Your task to perform on an android device: toggle translation in the chrome app Image 0: 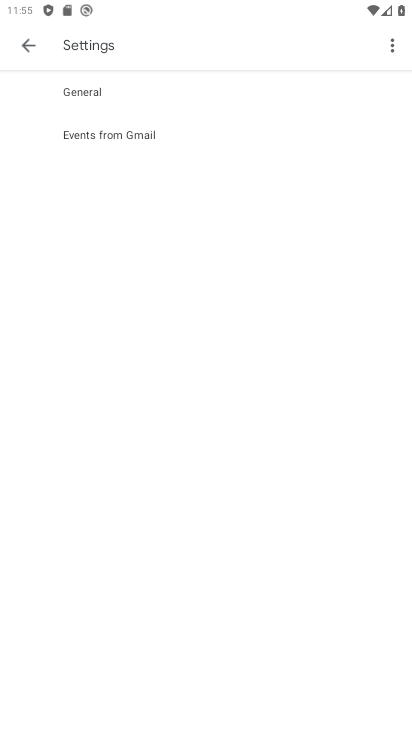
Step 0: press home button
Your task to perform on an android device: toggle translation in the chrome app Image 1: 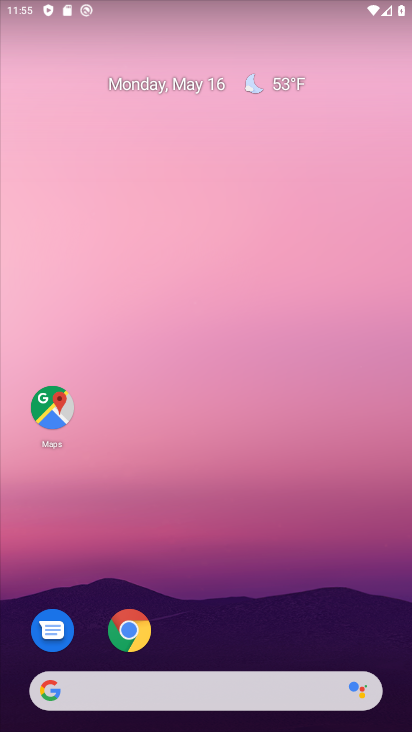
Step 1: drag from (163, 631) to (182, 179)
Your task to perform on an android device: toggle translation in the chrome app Image 2: 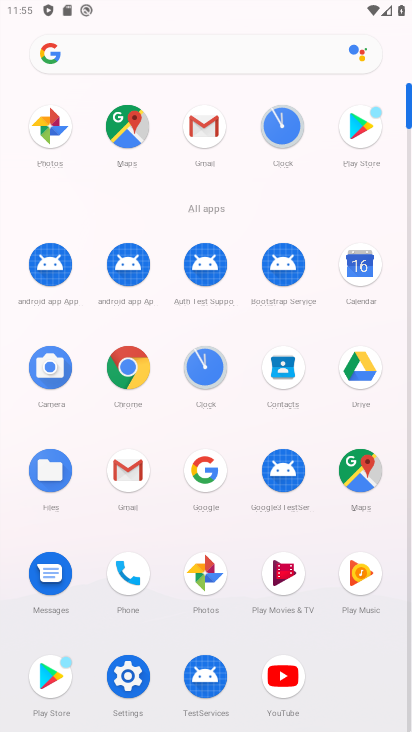
Step 2: click (141, 393)
Your task to perform on an android device: toggle translation in the chrome app Image 3: 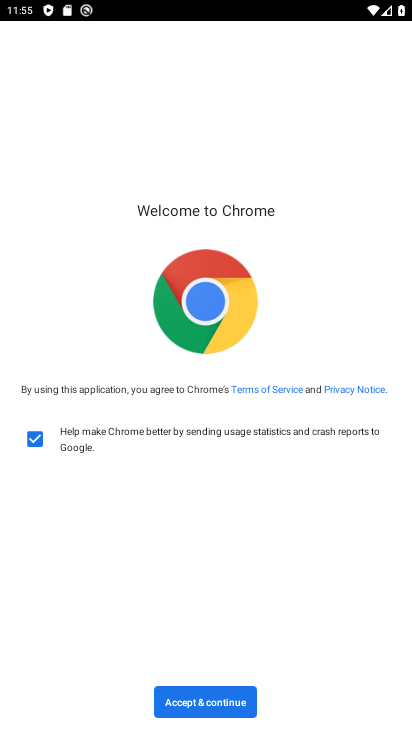
Step 3: click (192, 693)
Your task to perform on an android device: toggle translation in the chrome app Image 4: 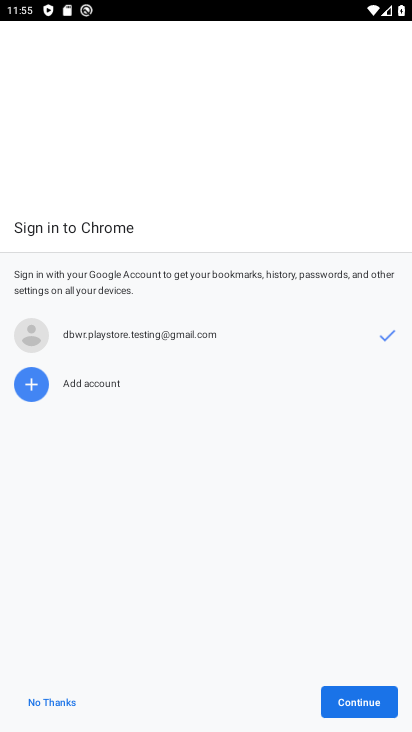
Step 4: click (362, 709)
Your task to perform on an android device: toggle translation in the chrome app Image 5: 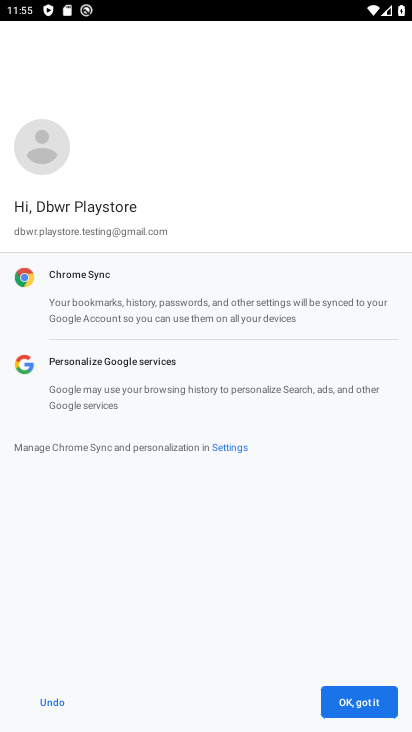
Step 5: click (356, 709)
Your task to perform on an android device: toggle translation in the chrome app Image 6: 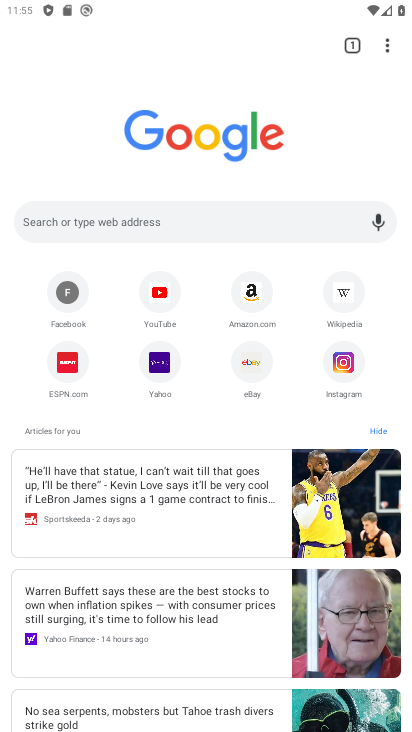
Step 6: click (390, 37)
Your task to perform on an android device: toggle translation in the chrome app Image 7: 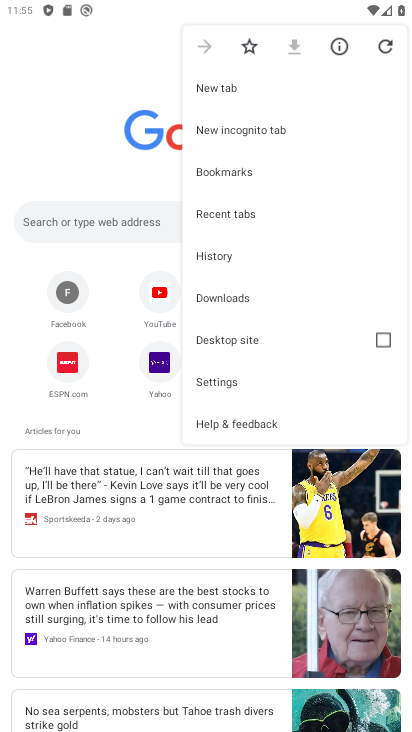
Step 7: drag from (282, 364) to (309, 149)
Your task to perform on an android device: toggle translation in the chrome app Image 8: 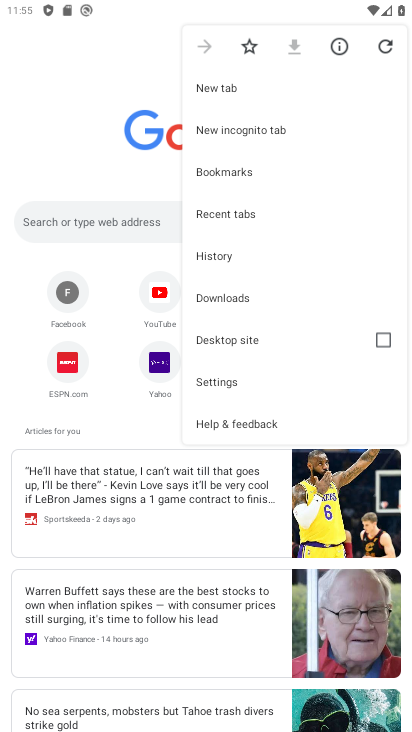
Step 8: click (245, 376)
Your task to perform on an android device: toggle translation in the chrome app Image 9: 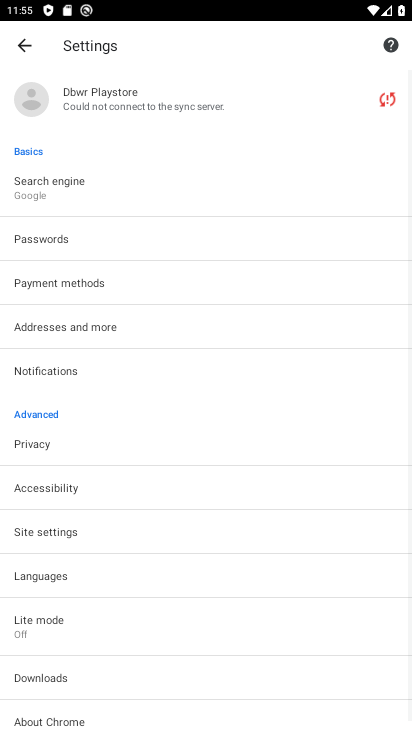
Step 9: drag from (145, 561) to (150, 399)
Your task to perform on an android device: toggle translation in the chrome app Image 10: 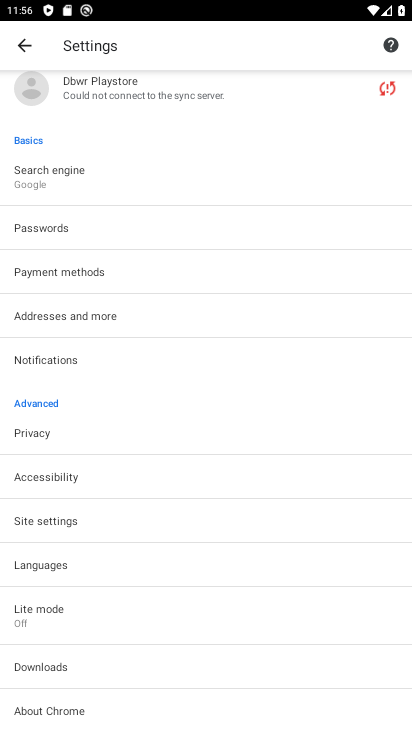
Step 10: click (24, 49)
Your task to perform on an android device: toggle translation in the chrome app Image 11: 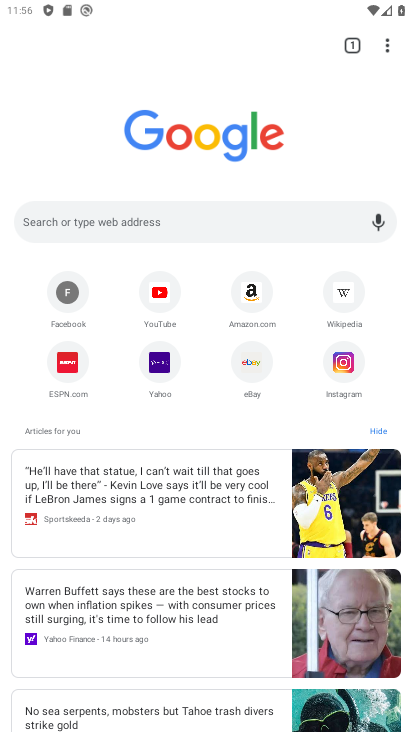
Step 11: click (396, 45)
Your task to perform on an android device: toggle translation in the chrome app Image 12: 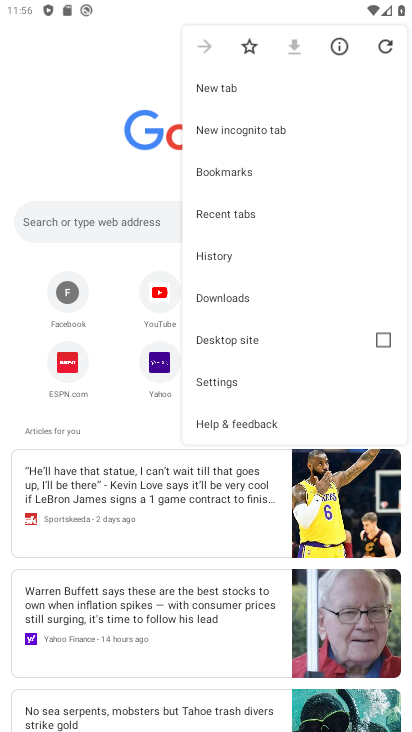
Step 12: task complete